Your task to perform on an android device: Is it going to rain today? Image 0: 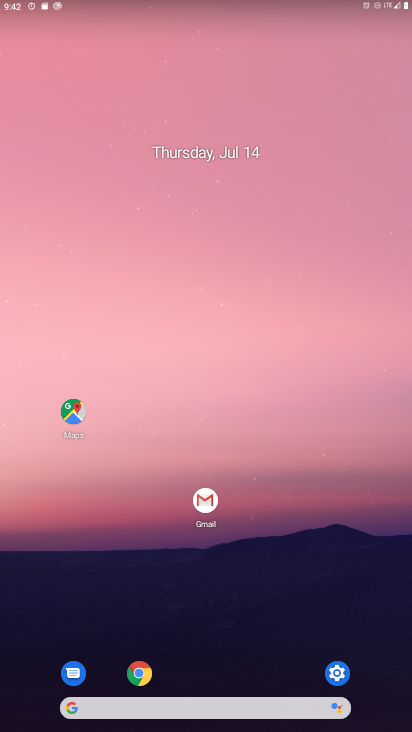
Step 0: click (177, 709)
Your task to perform on an android device: Is it going to rain today? Image 1: 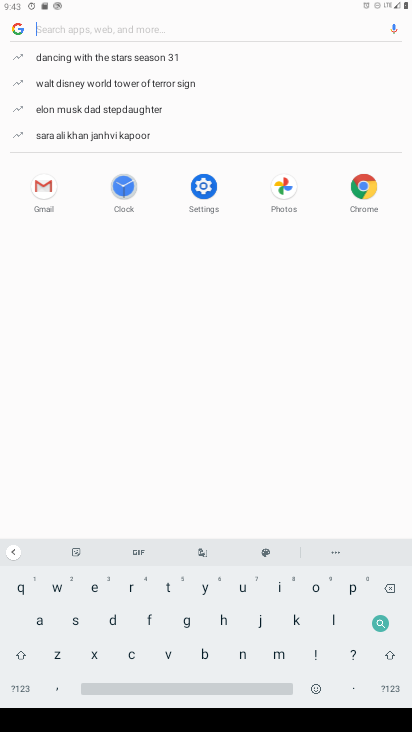
Step 1: click (130, 584)
Your task to perform on an android device: Is it going to rain today? Image 2: 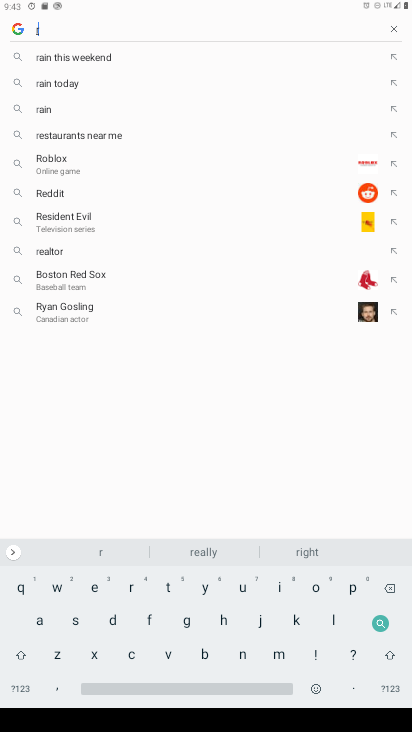
Step 2: click (35, 617)
Your task to perform on an android device: Is it going to rain today? Image 3: 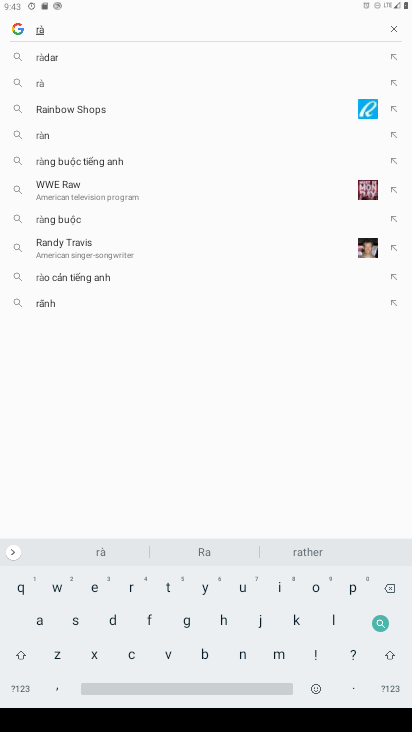
Step 3: click (277, 588)
Your task to perform on an android device: Is it going to rain today? Image 4: 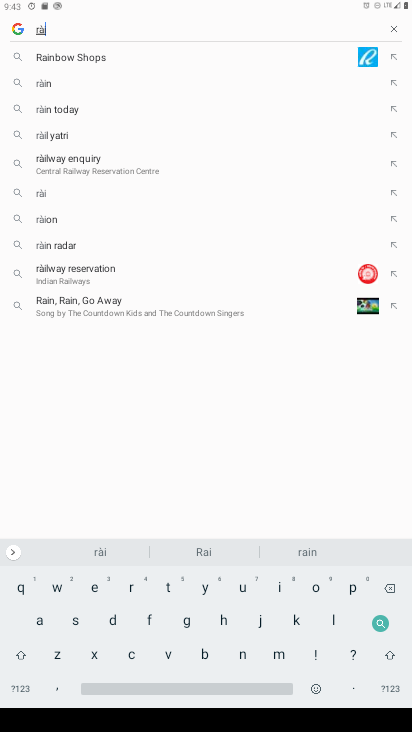
Step 4: click (239, 653)
Your task to perform on an android device: Is it going to rain today? Image 5: 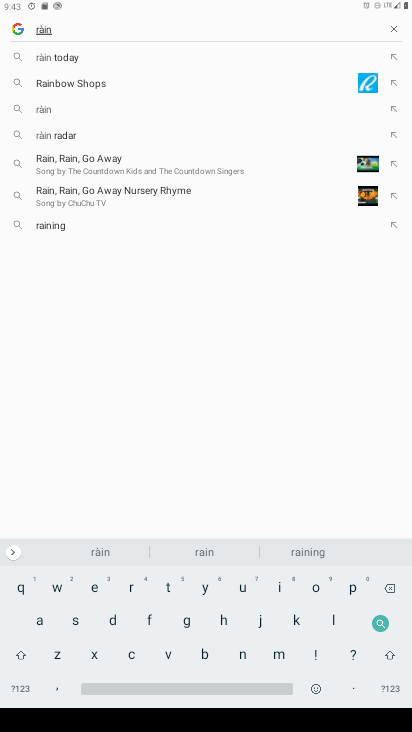
Step 5: click (214, 554)
Your task to perform on an android device: Is it going to rain today? Image 6: 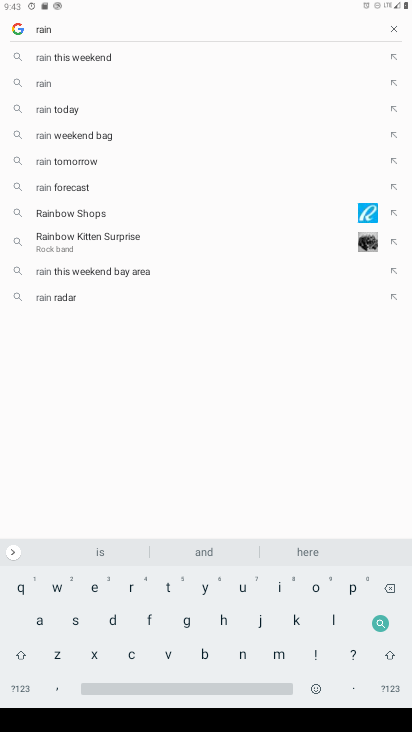
Step 6: click (166, 585)
Your task to perform on an android device: Is it going to rain today? Image 7: 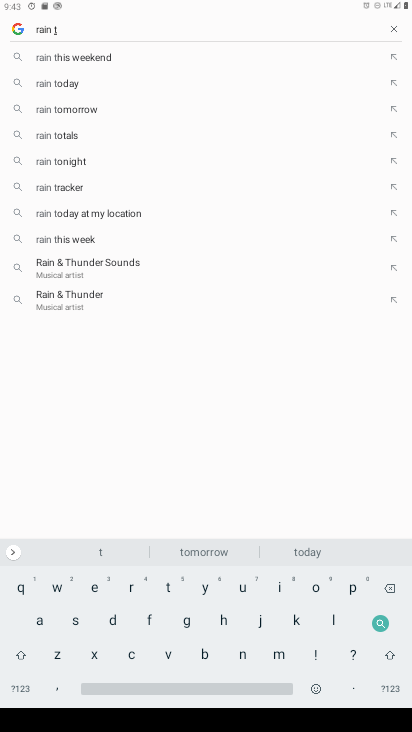
Step 7: click (64, 79)
Your task to perform on an android device: Is it going to rain today? Image 8: 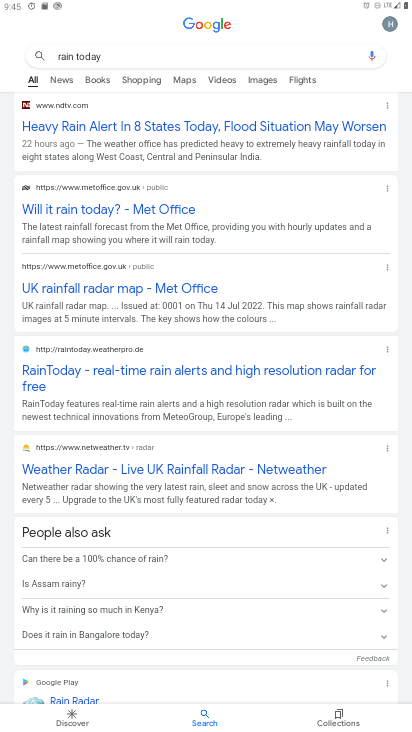
Step 8: task complete